Your task to perform on an android device: What is the news today? Image 0: 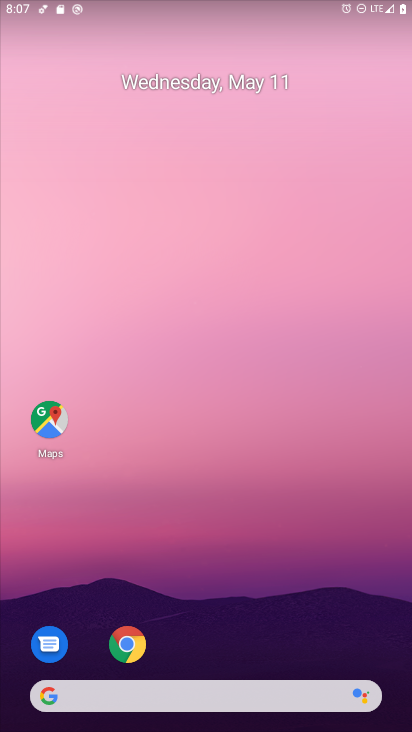
Step 0: drag from (8, 281) to (400, 396)
Your task to perform on an android device: What is the news today? Image 1: 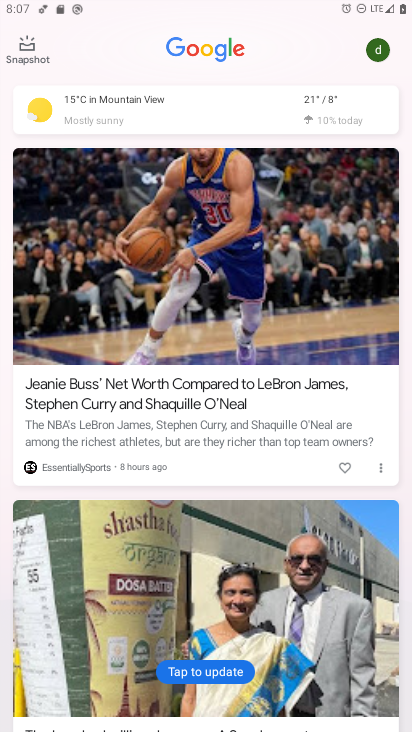
Step 1: task complete